Your task to perform on an android device: toggle airplane mode Image 0: 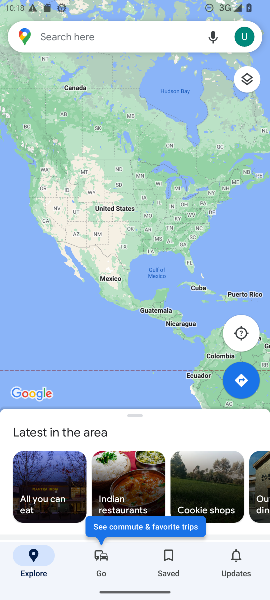
Step 0: press home button
Your task to perform on an android device: toggle airplane mode Image 1: 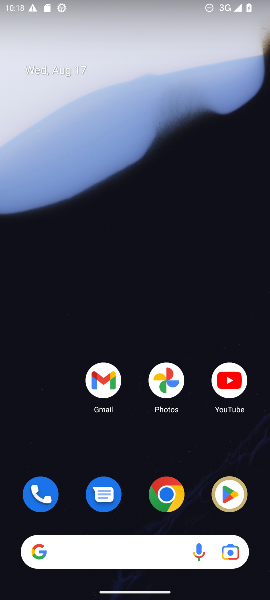
Step 1: drag from (186, 437) to (141, 4)
Your task to perform on an android device: toggle airplane mode Image 2: 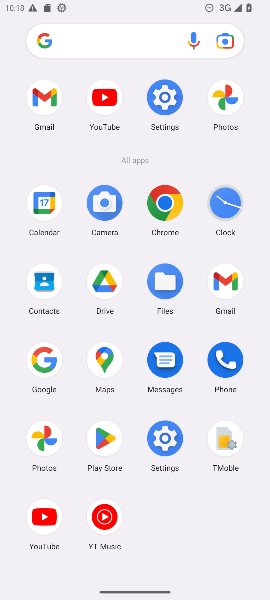
Step 2: drag from (146, 7) to (162, 497)
Your task to perform on an android device: toggle airplane mode Image 3: 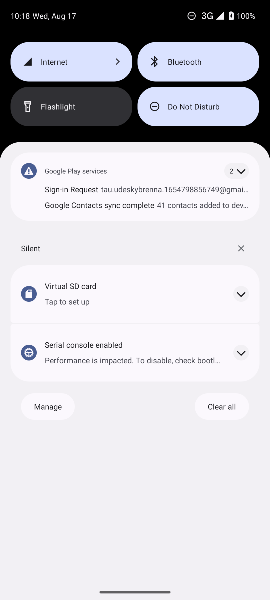
Step 3: drag from (126, 128) to (151, 483)
Your task to perform on an android device: toggle airplane mode Image 4: 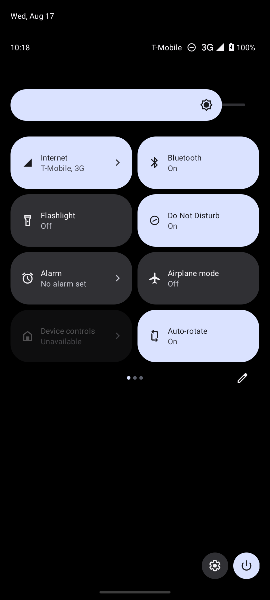
Step 4: click (182, 265)
Your task to perform on an android device: toggle airplane mode Image 5: 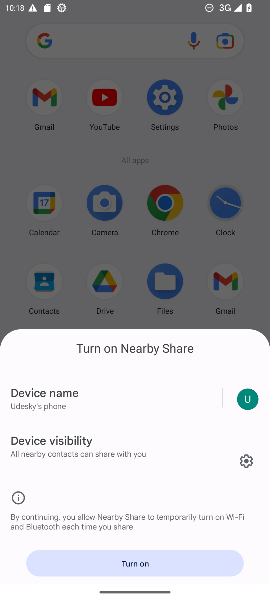
Step 5: click (17, 51)
Your task to perform on an android device: toggle airplane mode Image 6: 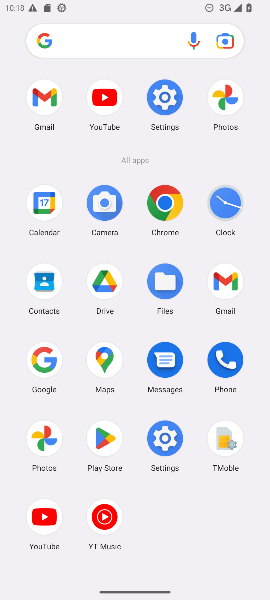
Step 6: drag from (86, 2) to (113, 597)
Your task to perform on an android device: toggle airplane mode Image 7: 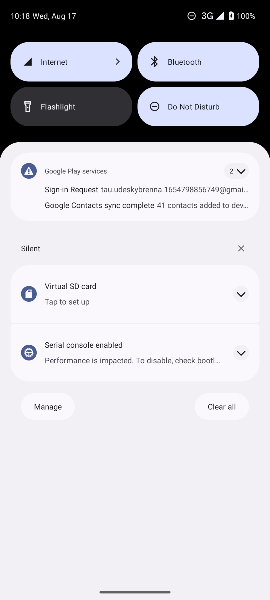
Step 7: drag from (112, 139) to (124, 599)
Your task to perform on an android device: toggle airplane mode Image 8: 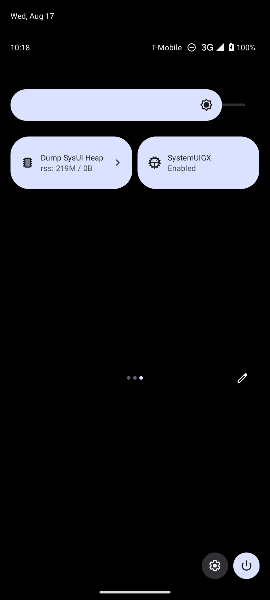
Step 8: drag from (8, 281) to (269, 347)
Your task to perform on an android device: toggle airplane mode Image 9: 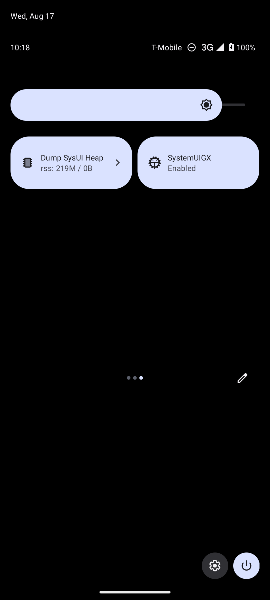
Step 9: drag from (13, 284) to (262, 310)
Your task to perform on an android device: toggle airplane mode Image 10: 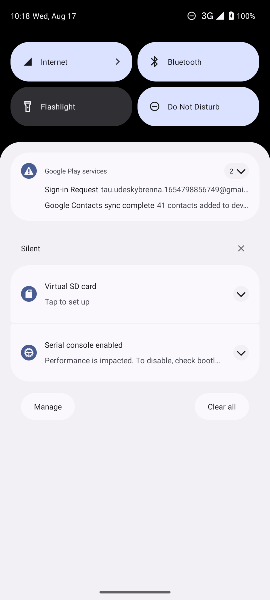
Step 10: drag from (99, 136) to (130, 588)
Your task to perform on an android device: toggle airplane mode Image 11: 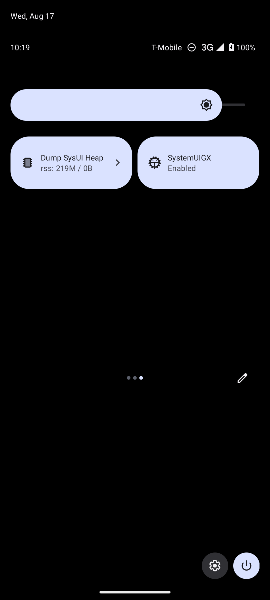
Step 11: click (124, 379)
Your task to perform on an android device: toggle airplane mode Image 12: 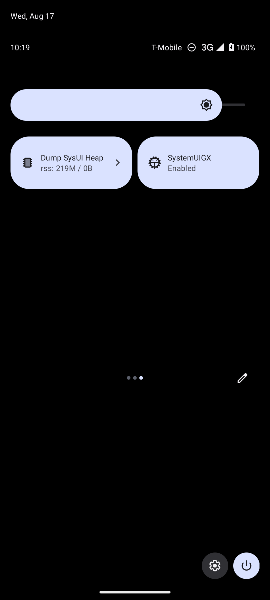
Step 12: click (127, 381)
Your task to perform on an android device: toggle airplane mode Image 13: 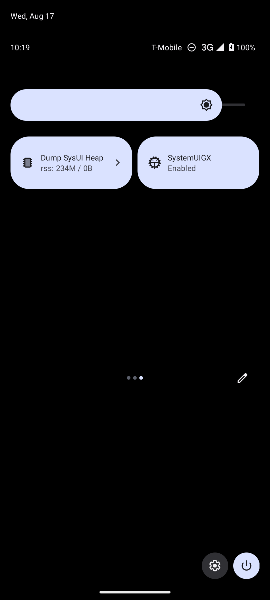
Step 13: drag from (29, 299) to (269, 332)
Your task to perform on an android device: toggle airplane mode Image 14: 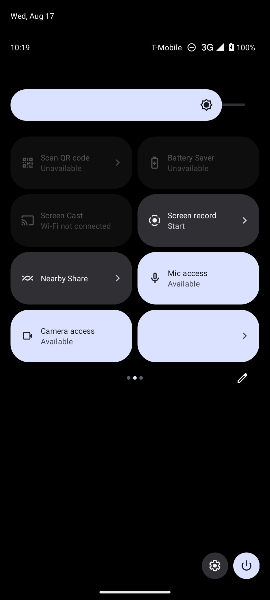
Step 14: drag from (7, 265) to (230, 311)
Your task to perform on an android device: toggle airplane mode Image 15: 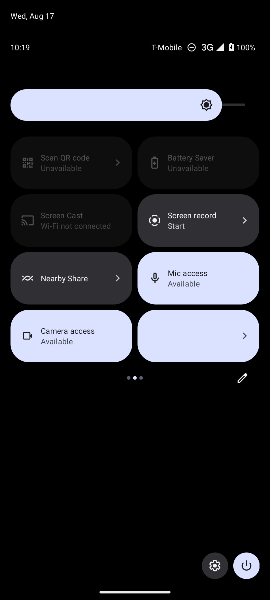
Step 15: drag from (9, 241) to (261, 339)
Your task to perform on an android device: toggle airplane mode Image 16: 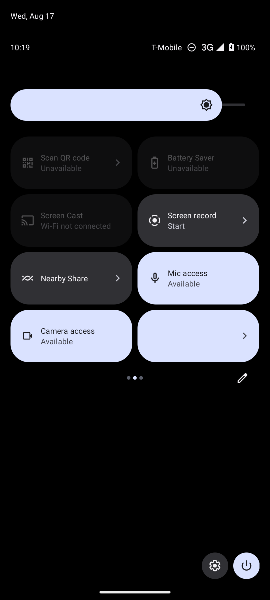
Step 16: drag from (13, 243) to (268, 282)
Your task to perform on an android device: toggle airplane mode Image 17: 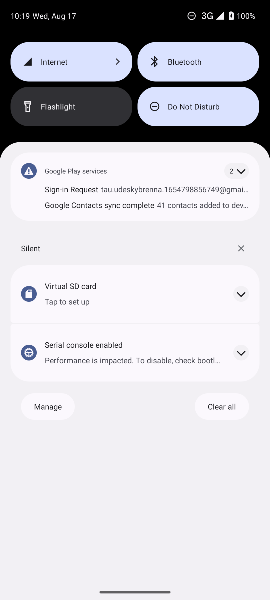
Step 17: drag from (140, 132) to (140, 566)
Your task to perform on an android device: toggle airplane mode Image 18: 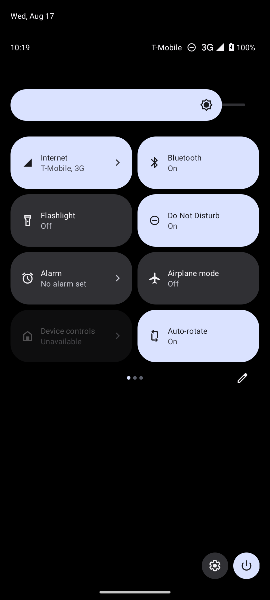
Step 18: click (168, 283)
Your task to perform on an android device: toggle airplane mode Image 19: 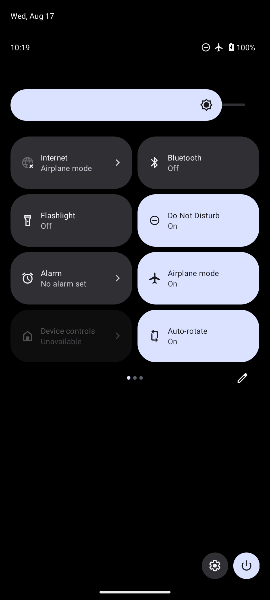
Step 19: task complete